Your task to perform on an android device: Add "apple airpods pro" to the cart on newegg Image 0: 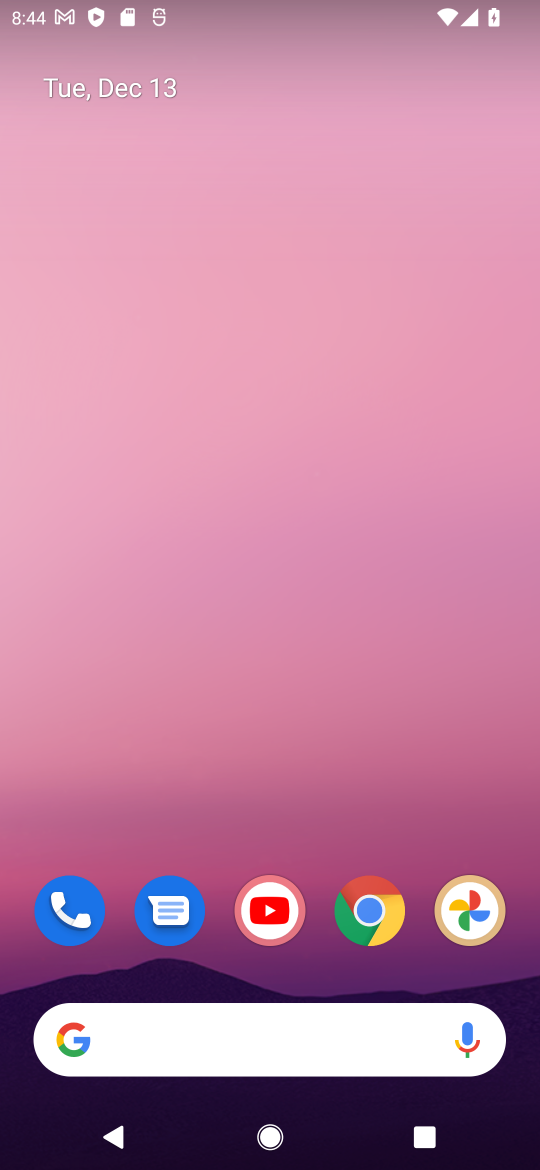
Step 0: drag from (218, 1027) to (222, 492)
Your task to perform on an android device: Add "apple airpods pro" to the cart on newegg Image 1: 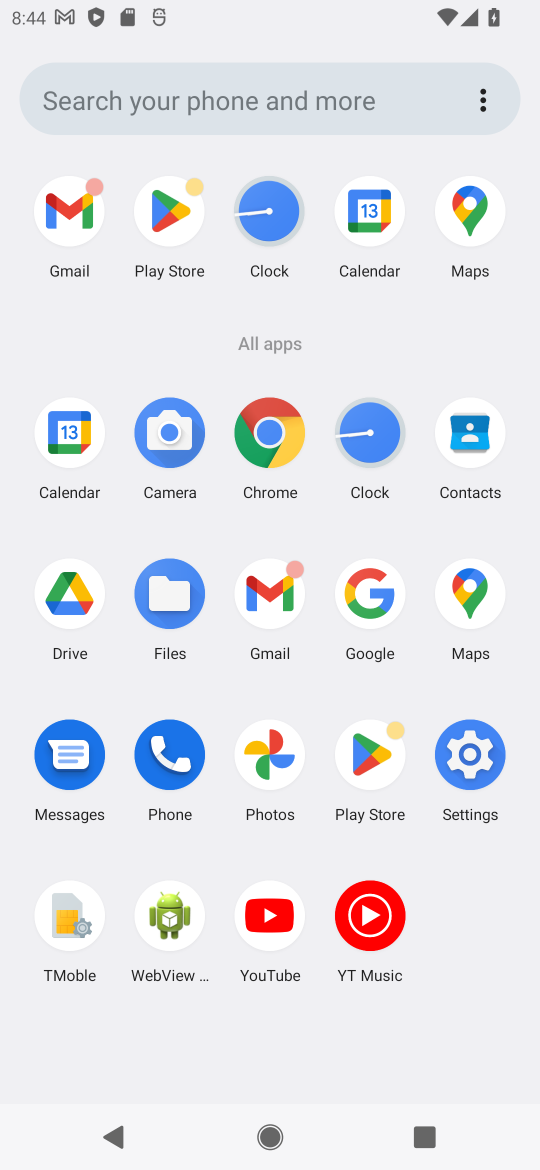
Step 1: click (365, 594)
Your task to perform on an android device: Add "apple airpods pro" to the cart on newegg Image 2: 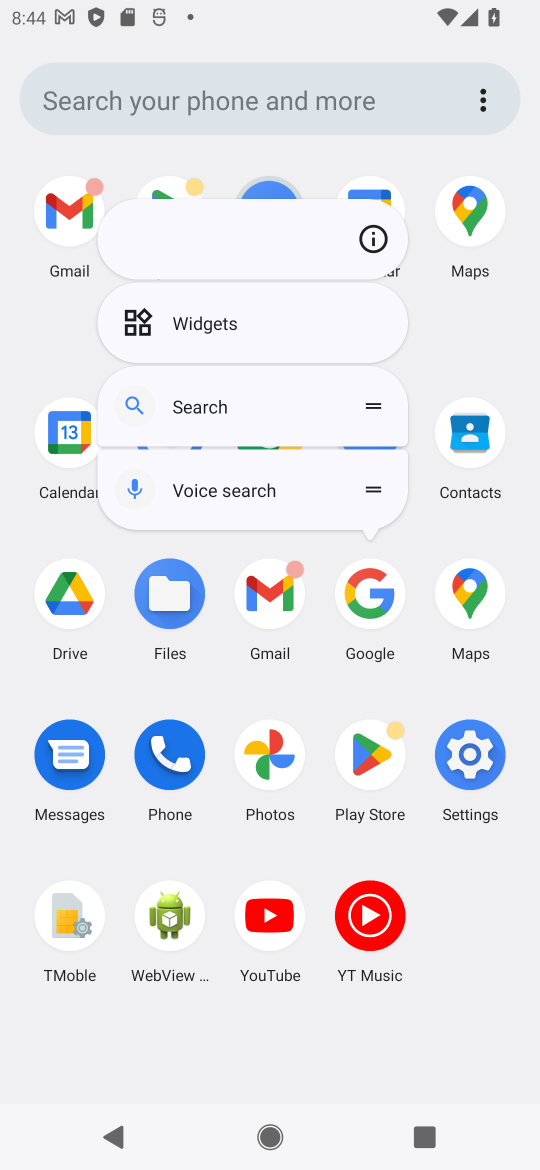
Step 2: click (372, 599)
Your task to perform on an android device: Add "apple airpods pro" to the cart on newegg Image 3: 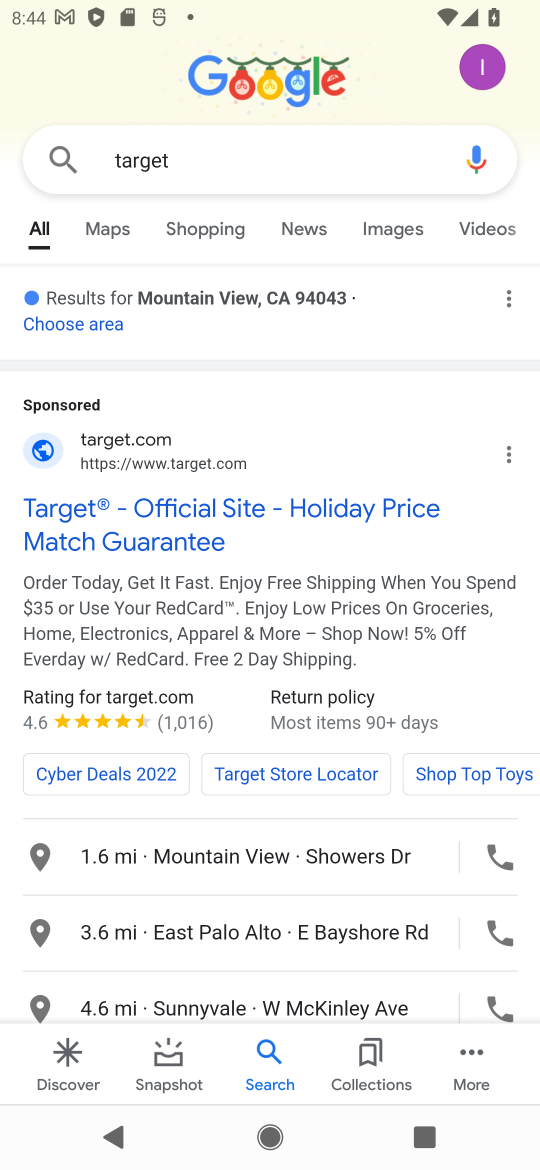
Step 3: click (140, 159)
Your task to perform on an android device: Add "apple airpods pro" to the cart on newegg Image 4: 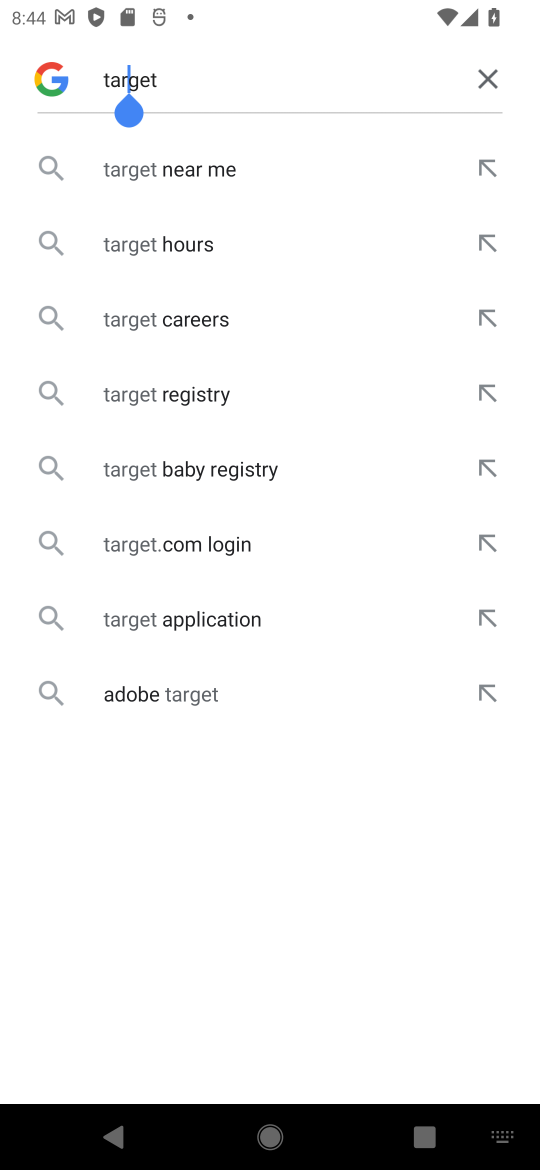
Step 4: click (479, 79)
Your task to perform on an android device: Add "apple airpods pro" to the cart on newegg Image 5: 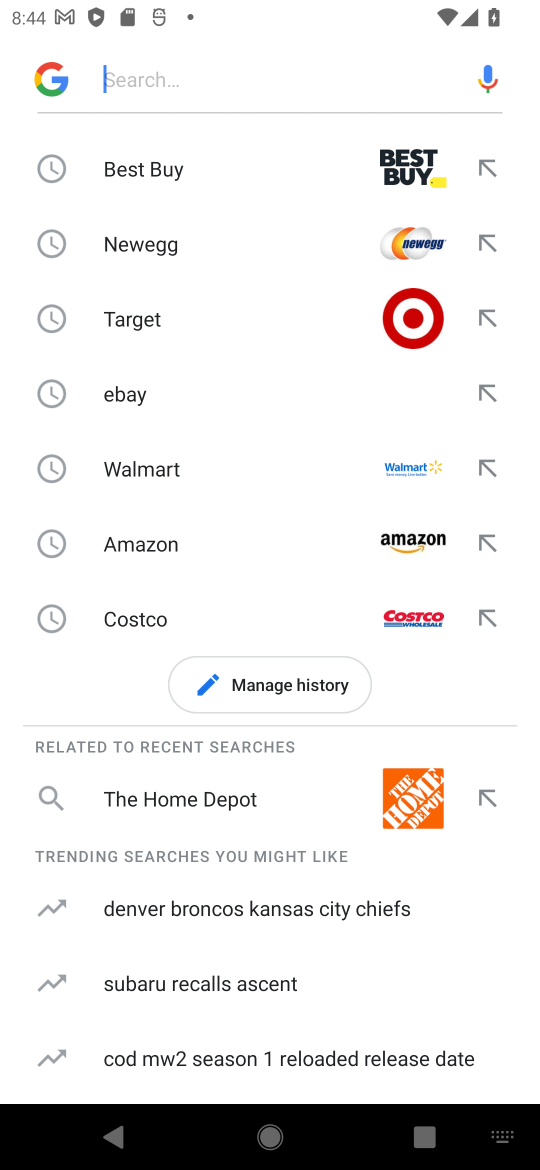
Step 5: click (154, 256)
Your task to perform on an android device: Add "apple airpods pro" to the cart on newegg Image 6: 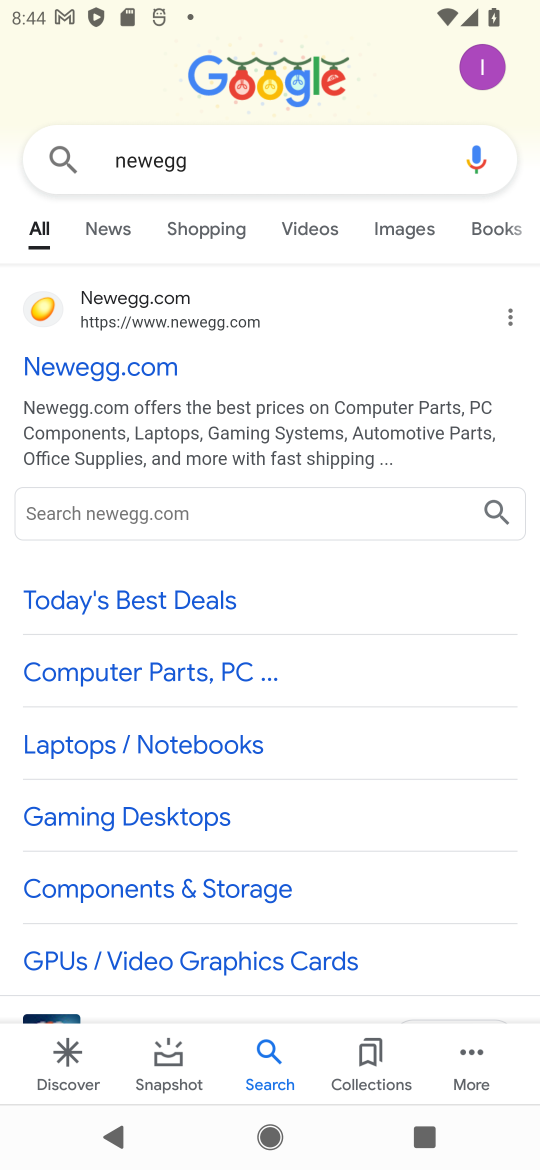
Step 6: click (108, 355)
Your task to perform on an android device: Add "apple airpods pro" to the cart on newegg Image 7: 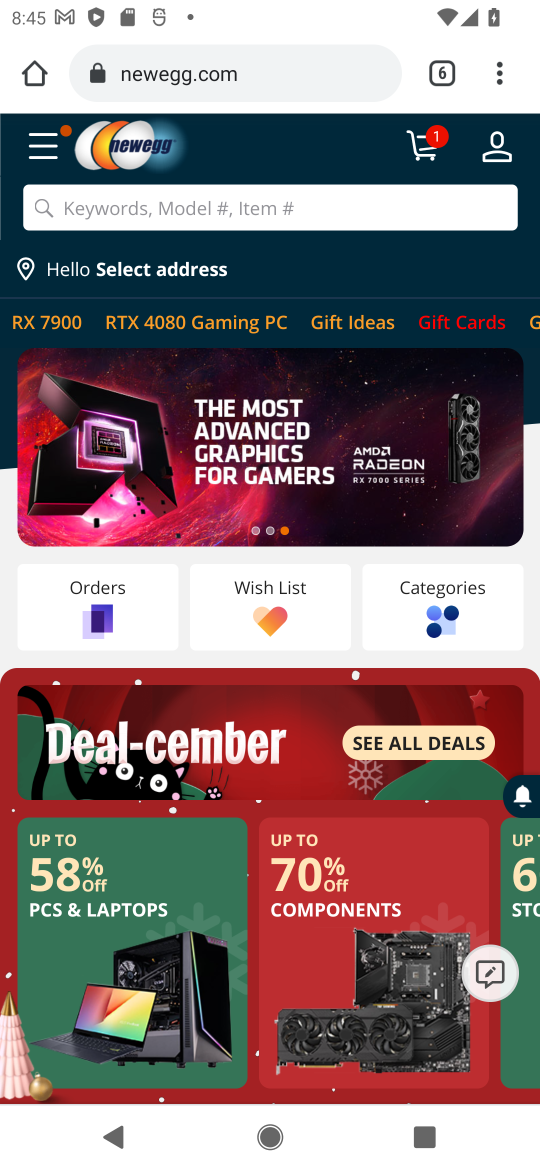
Step 7: click (126, 210)
Your task to perform on an android device: Add "apple airpods pro" to the cart on newegg Image 8: 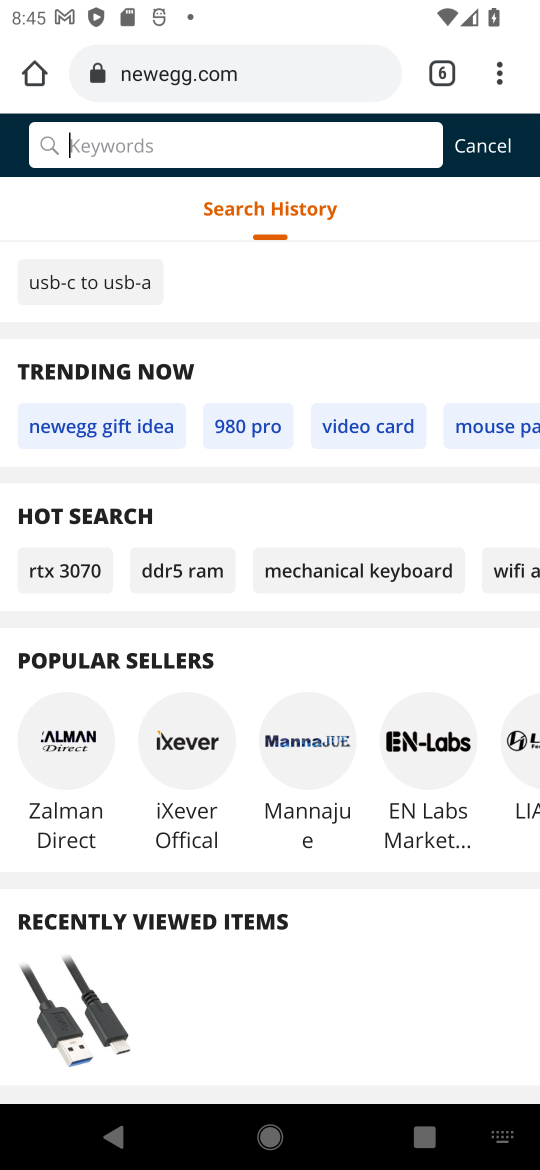
Step 8: type "apple airpods pro"
Your task to perform on an android device: Add "apple airpods pro" to the cart on newegg Image 9: 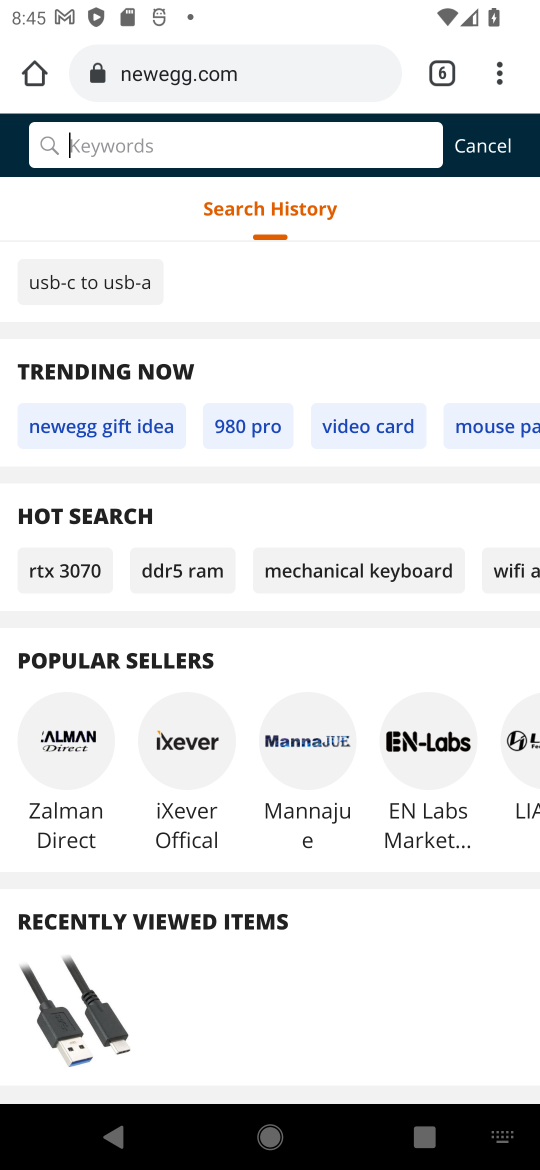
Step 9: click (45, 143)
Your task to perform on an android device: Add "apple airpods pro" to the cart on newegg Image 10: 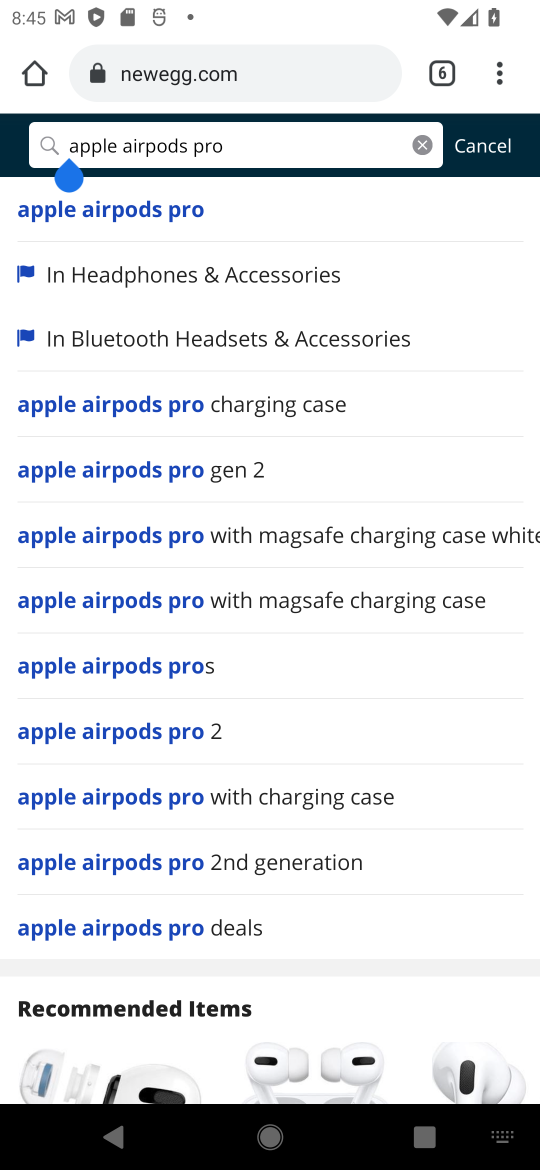
Step 10: click (124, 203)
Your task to perform on an android device: Add "apple airpods pro" to the cart on newegg Image 11: 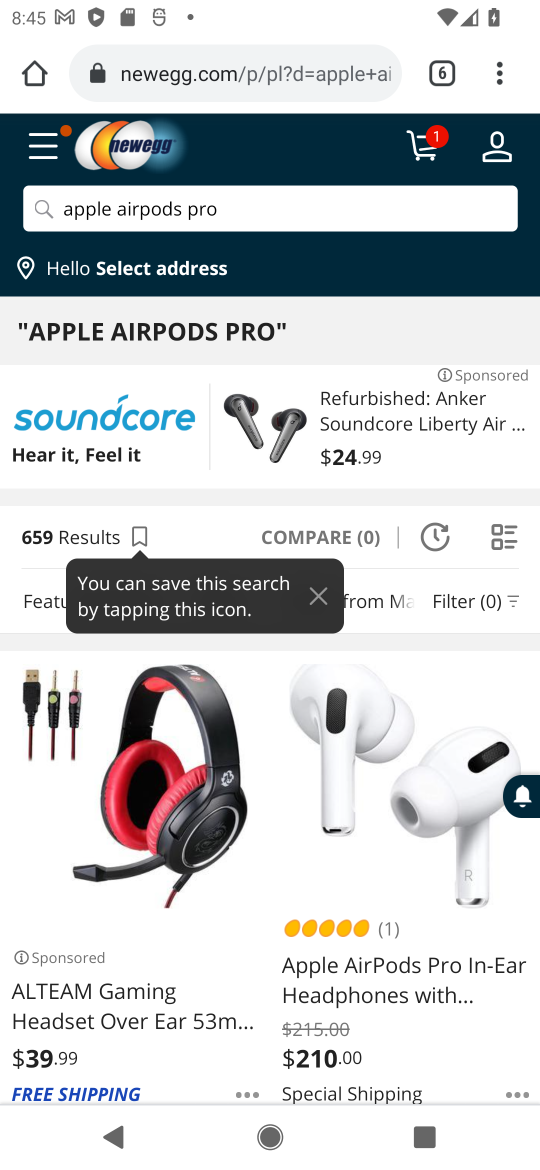
Step 11: drag from (274, 895) to (275, 401)
Your task to perform on an android device: Add "apple airpods pro" to the cart on newegg Image 12: 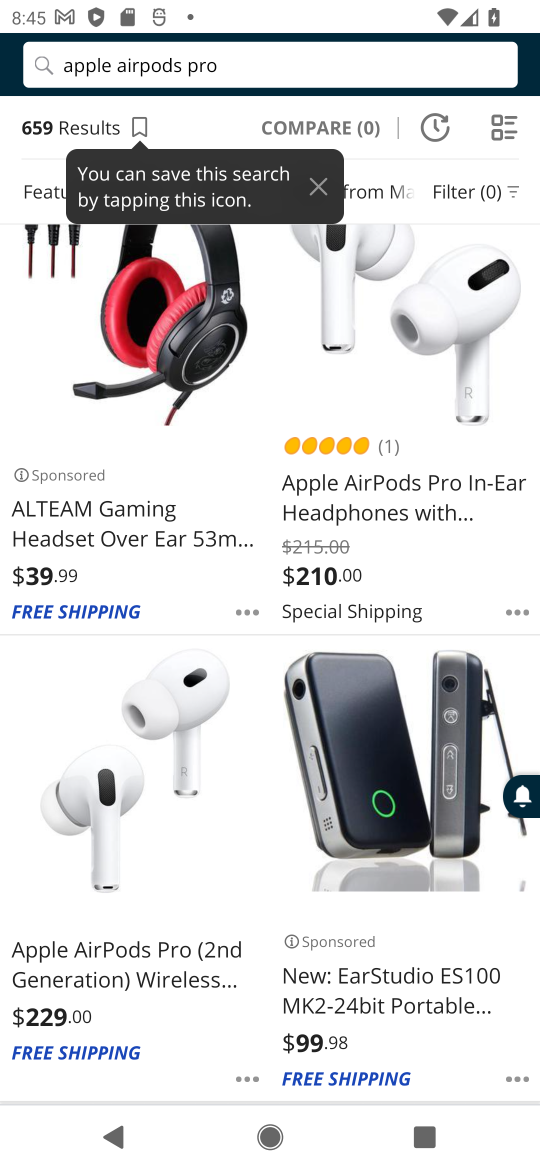
Step 12: click (386, 485)
Your task to perform on an android device: Add "apple airpods pro" to the cart on newegg Image 13: 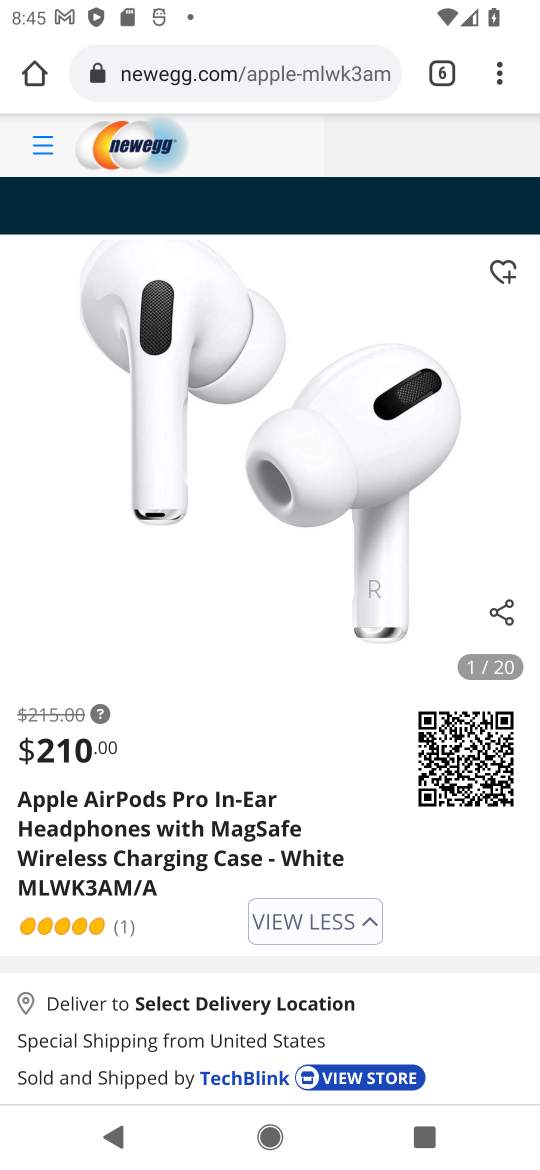
Step 13: drag from (291, 1014) to (334, 421)
Your task to perform on an android device: Add "apple airpods pro" to the cart on newegg Image 14: 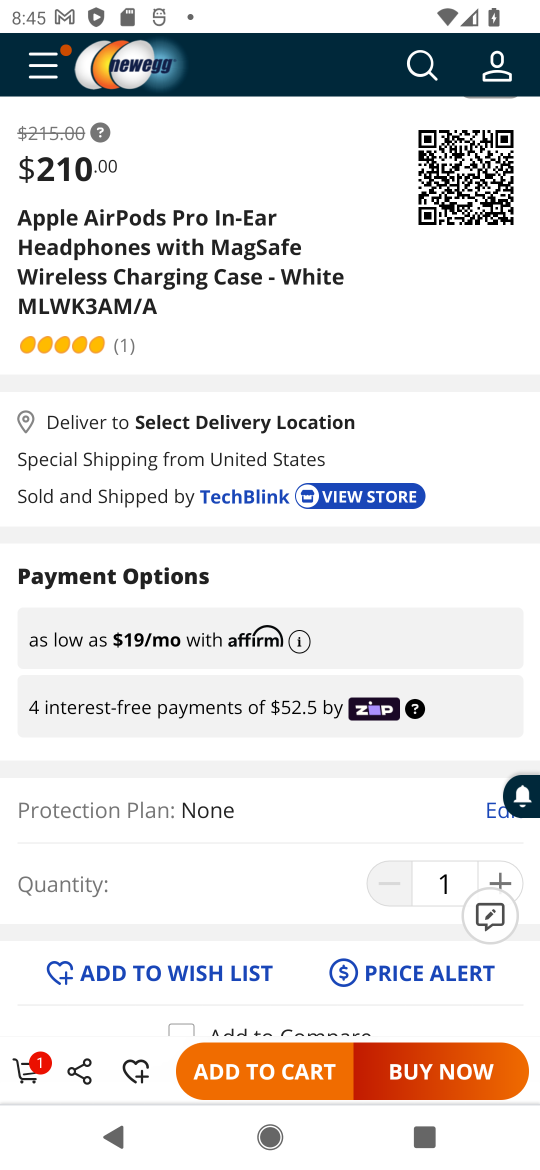
Step 14: click (286, 1063)
Your task to perform on an android device: Add "apple airpods pro" to the cart on newegg Image 15: 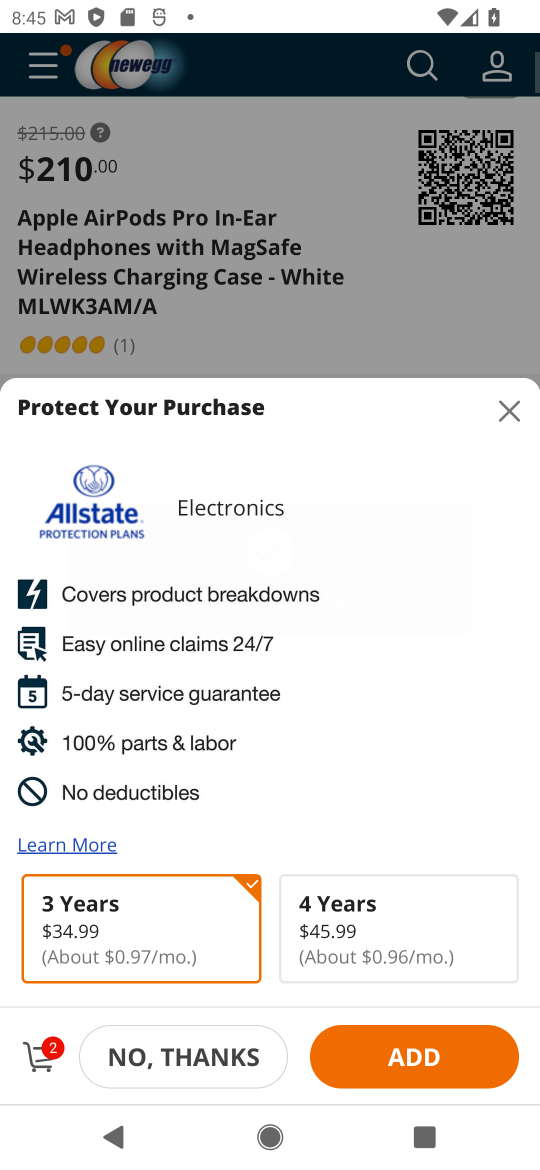
Step 15: task complete